Your task to perform on an android device: make emails show in primary in the gmail app Image 0: 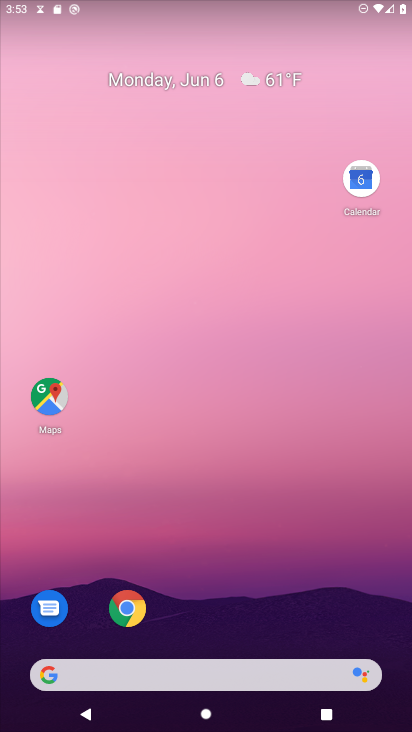
Step 0: drag from (274, 259) to (276, 0)
Your task to perform on an android device: make emails show in primary in the gmail app Image 1: 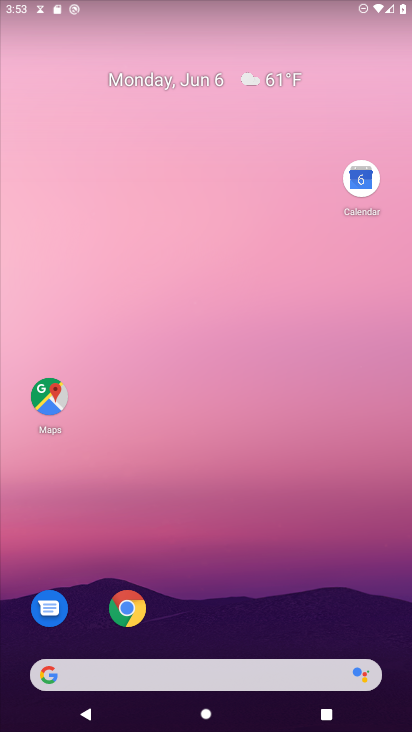
Step 1: drag from (234, 534) to (244, 0)
Your task to perform on an android device: make emails show in primary in the gmail app Image 2: 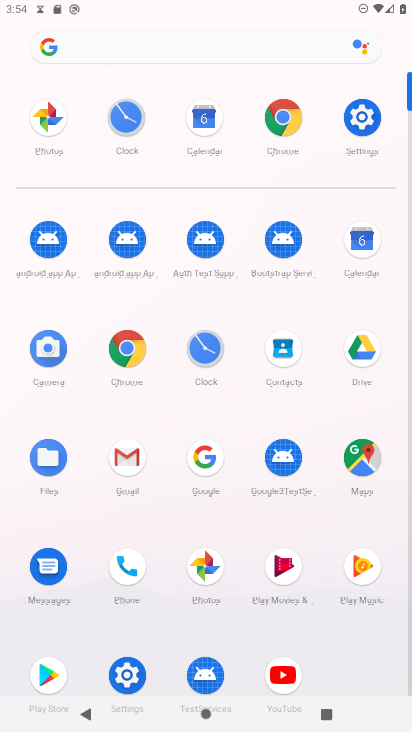
Step 2: click (123, 447)
Your task to perform on an android device: make emails show in primary in the gmail app Image 3: 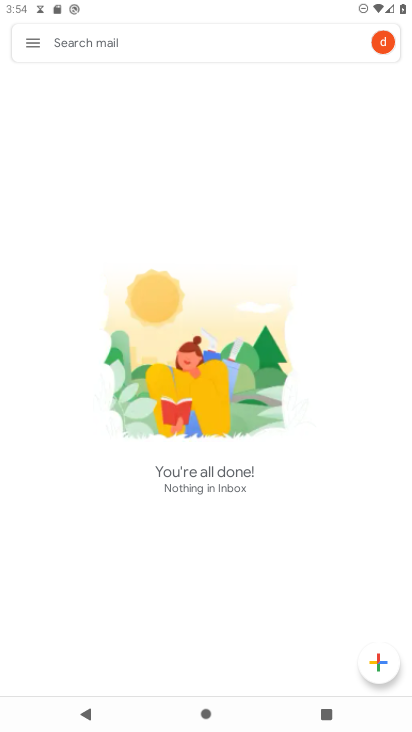
Step 3: click (34, 42)
Your task to perform on an android device: make emails show in primary in the gmail app Image 4: 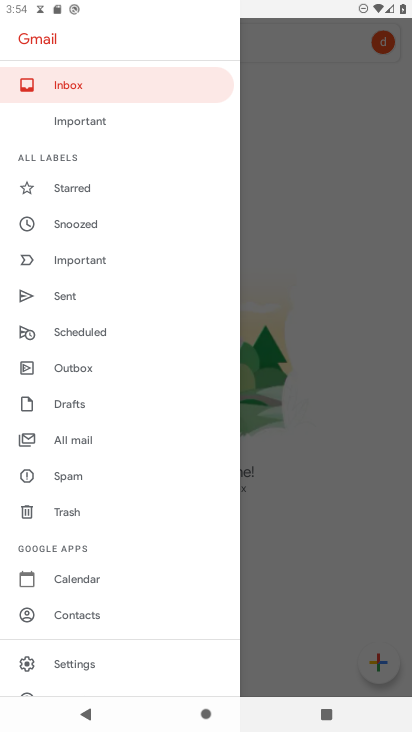
Step 4: click (118, 664)
Your task to perform on an android device: make emails show in primary in the gmail app Image 5: 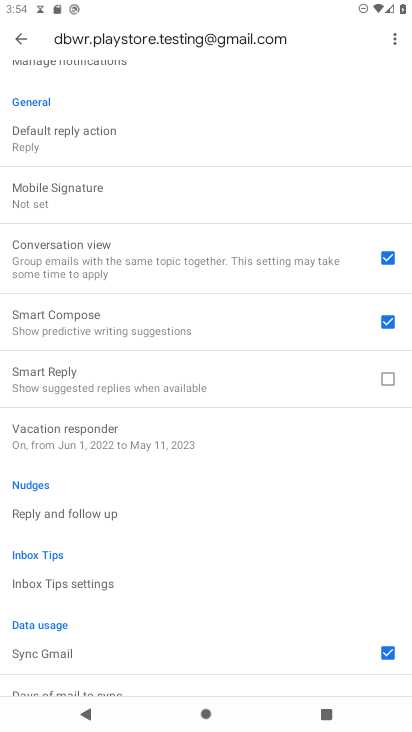
Step 5: drag from (140, 242) to (194, 672)
Your task to perform on an android device: make emails show in primary in the gmail app Image 6: 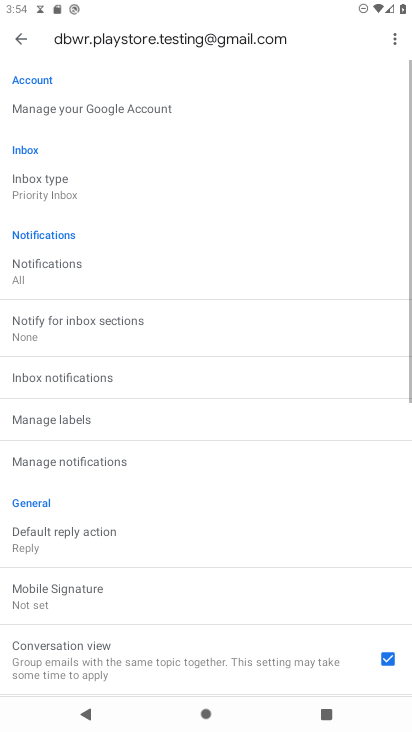
Step 6: click (83, 182)
Your task to perform on an android device: make emails show in primary in the gmail app Image 7: 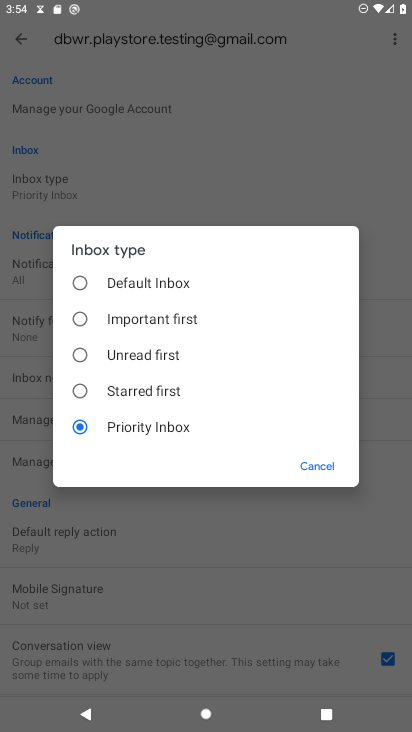
Step 7: click (95, 288)
Your task to perform on an android device: make emails show in primary in the gmail app Image 8: 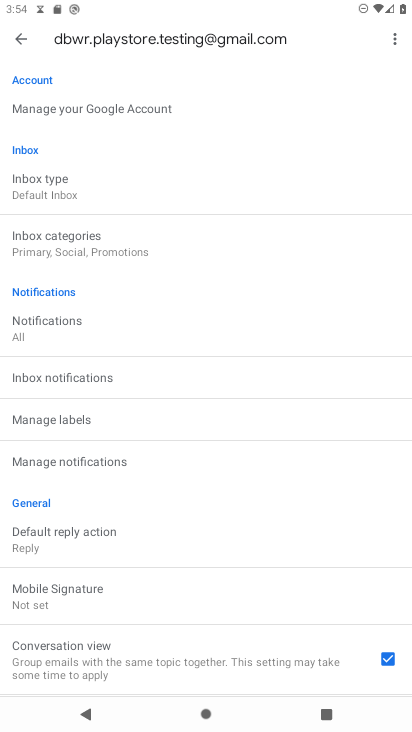
Step 8: task complete